Your task to perform on an android device: set the stopwatch Image 0: 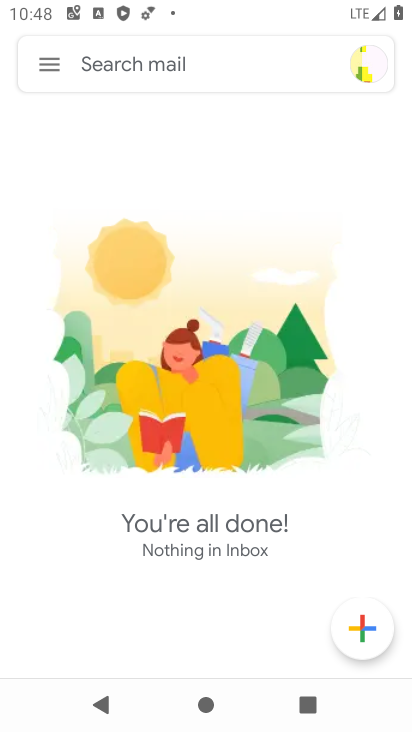
Step 0: press home button
Your task to perform on an android device: set the stopwatch Image 1: 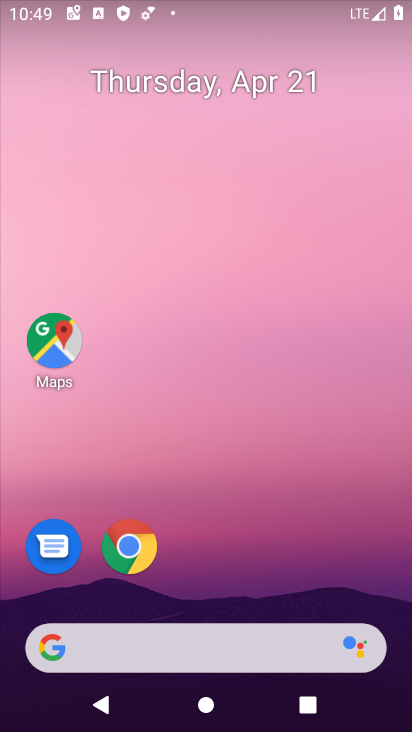
Step 1: drag from (342, 596) to (253, 7)
Your task to perform on an android device: set the stopwatch Image 2: 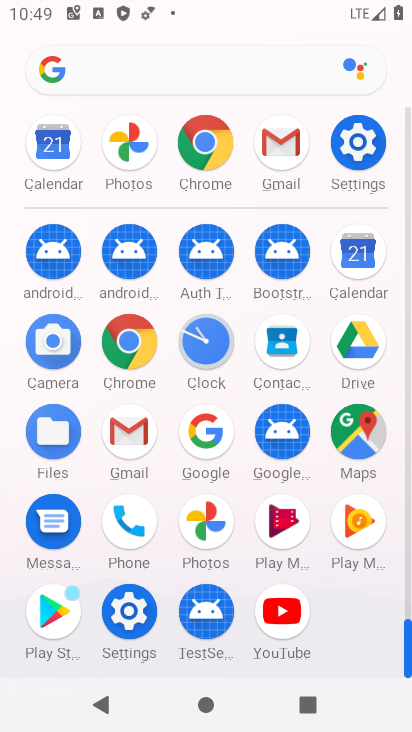
Step 2: click (206, 346)
Your task to perform on an android device: set the stopwatch Image 3: 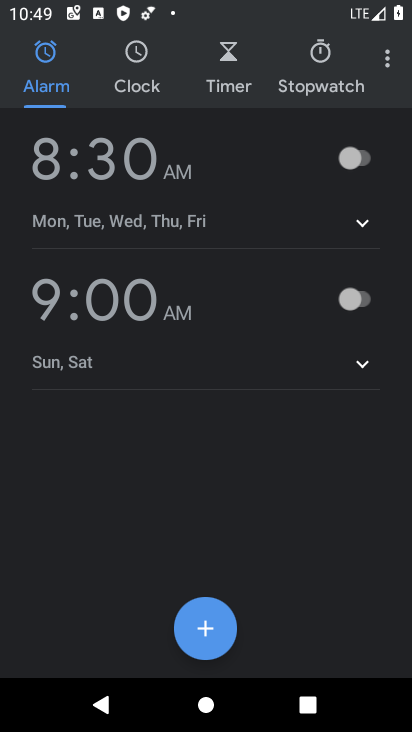
Step 3: click (322, 51)
Your task to perform on an android device: set the stopwatch Image 4: 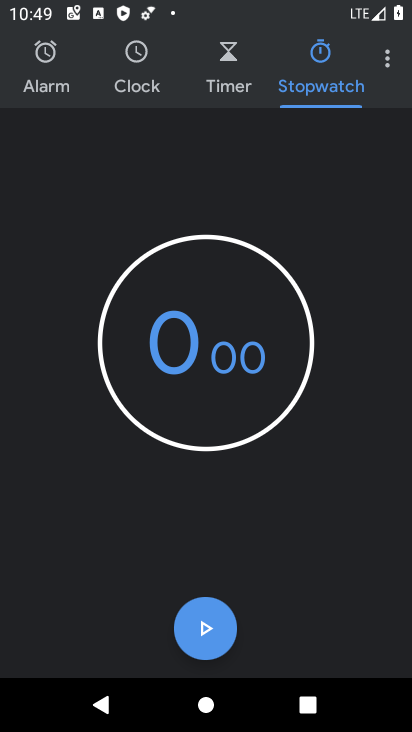
Step 4: task complete